Your task to perform on an android device: Open Android settings Image 0: 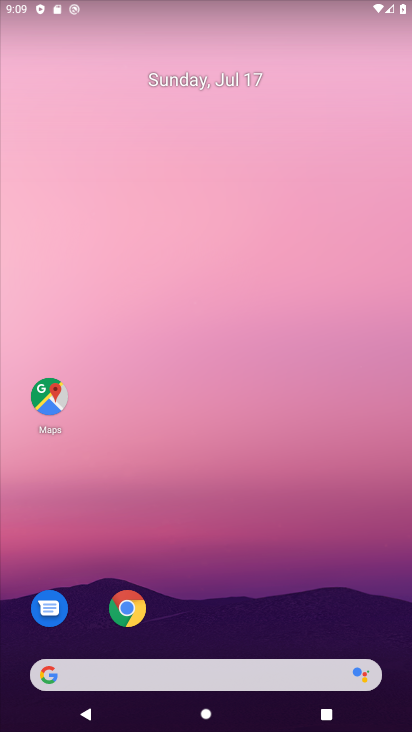
Step 0: drag from (277, 567) to (309, 0)
Your task to perform on an android device: Open Android settings Image 1: 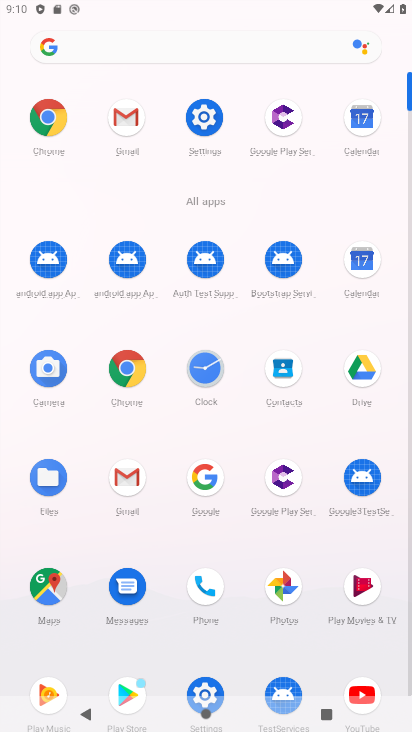
Step 1: click (207, 122)
Your task to perform on an android device: Open Android settings Image 2: 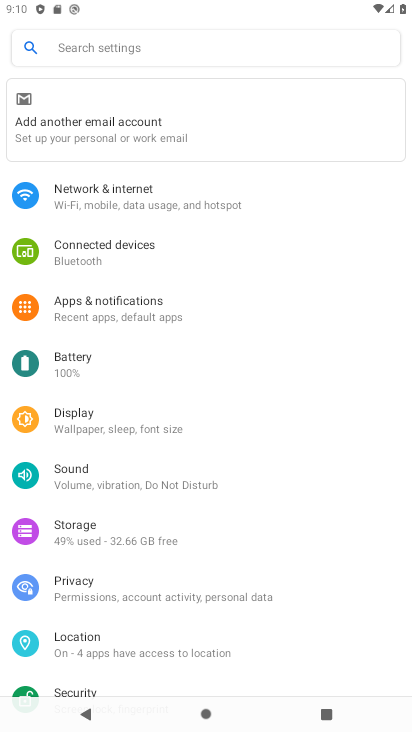
Step 2: task complete